Your task to perform on an android device: Do I have any events today? Image 0: 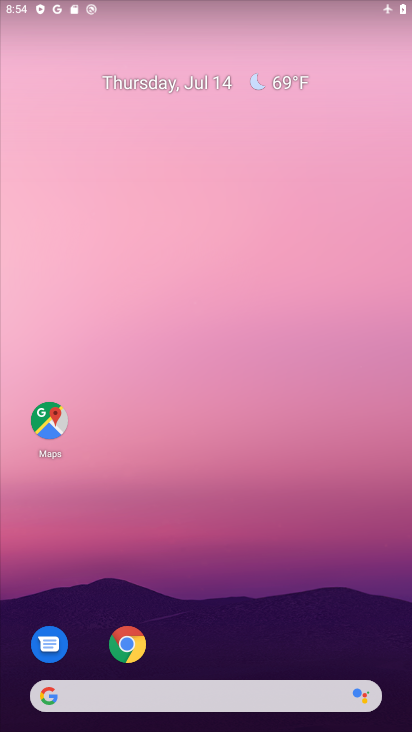
Step 0: click (146, 648)
Your task to perform on an android device: Do I have any events today? Image 1: 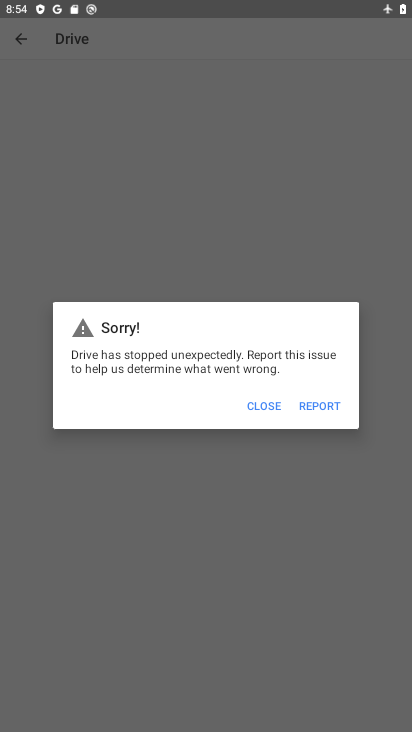
Step 1: press home button
Your task to perform on an android device: Do I have any events today? Image 2: 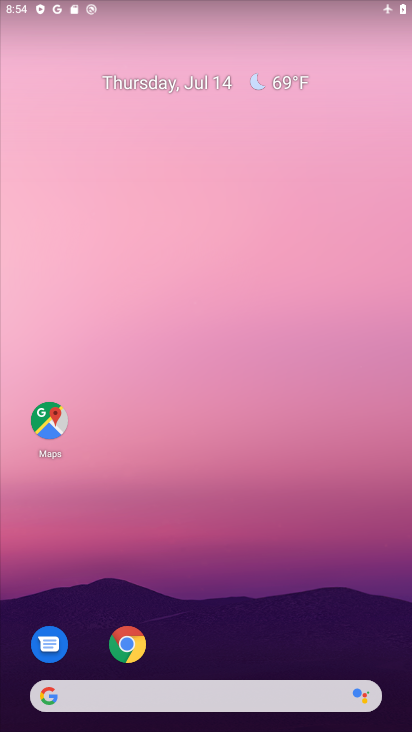
Step 2: click (155, 87)
Your task to perform on an android device: Do I have any events today? Image 3: 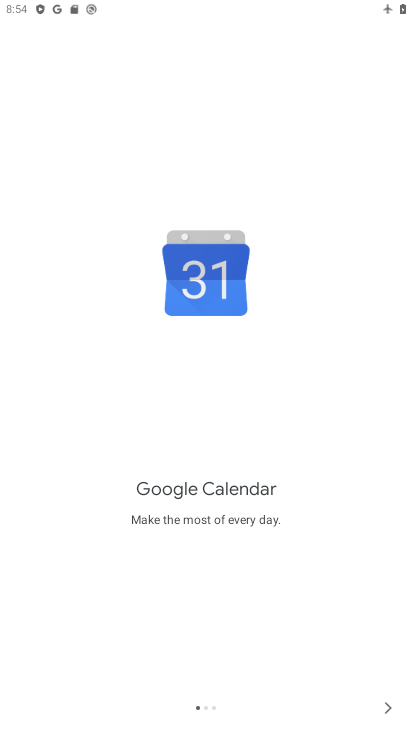
Step 3: click (373, 701)
Your task to perform on an android device: Do I have any events today? Image 4: 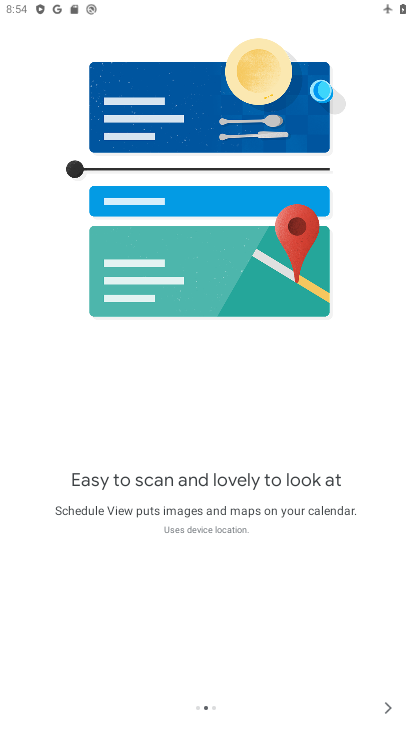
Step 4: click (381, 703)
Your task to perform on an android device: Do I have any events today? Image 5: 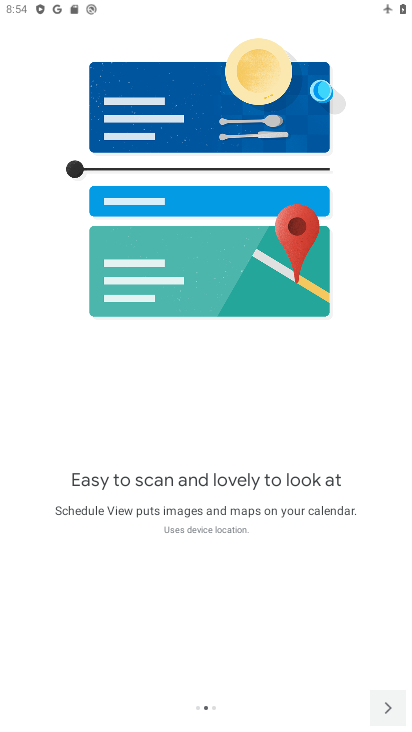
Step 5: click (381, 703)
Your task to perform on an android device: Do I have any events today? Image 6: 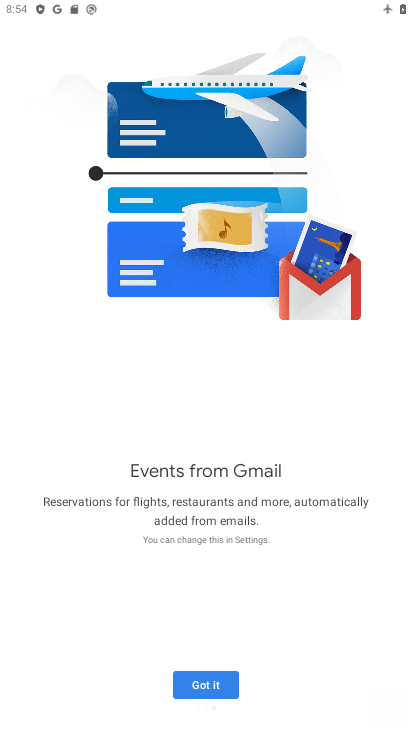
Step 6: click (381, 703)
Your task to perform on an android device: Do I have any events today? Image 7: 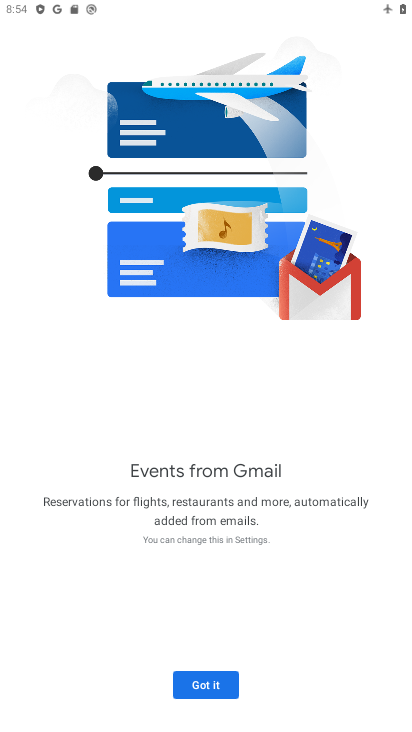
Step 7: click (381, 703)
Your task to perform on an android device: Do I have any events today? Image 8: 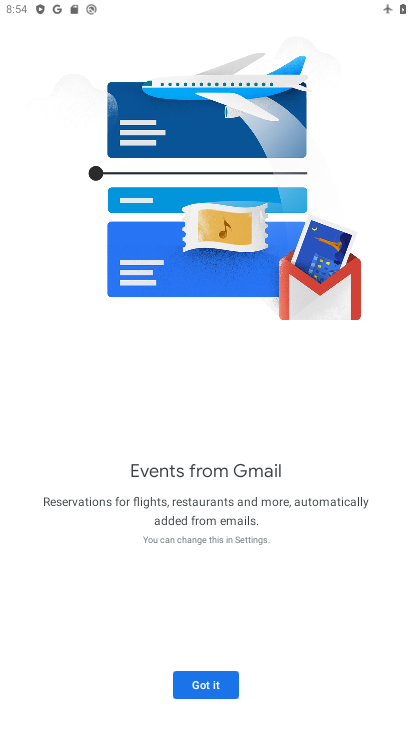
Step 8: click (196, 679)
Your task to perform on an android device: Do I have any events today? Image 9: 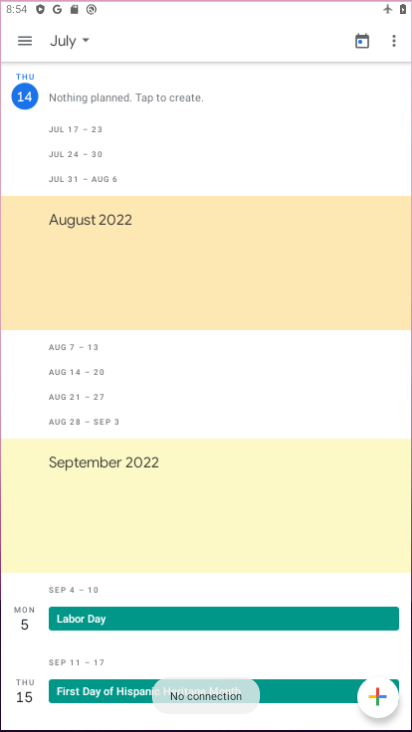
Step 9: click (196, 679)
Your task to perform on an android device: Do I have any events today? Image 10: 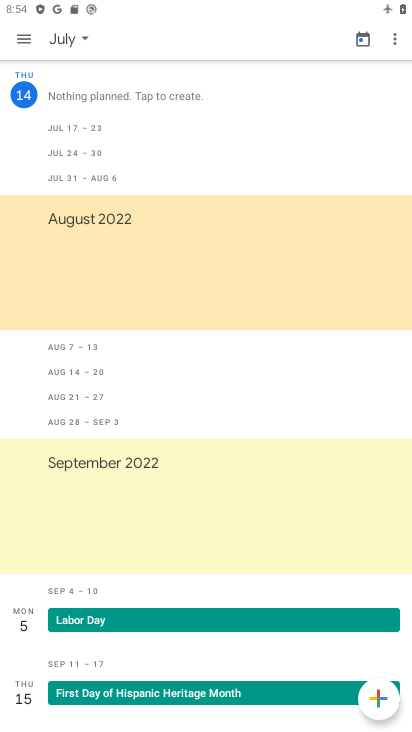
Step 10: click (31, 31)
Your task to perform on an android device: Do I have any events today? Image 11: 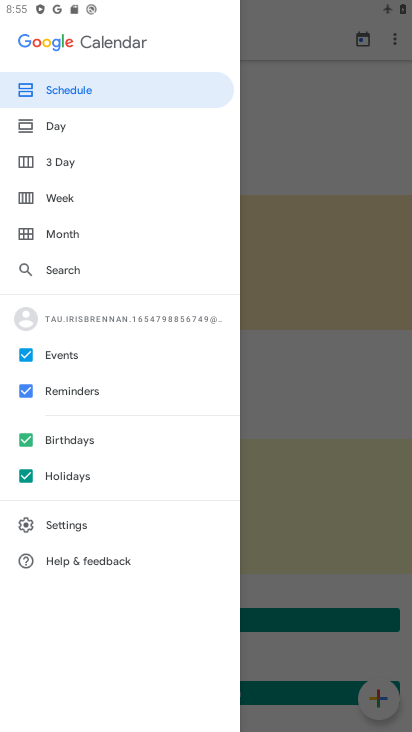
Step 11: click (28, 394)
Your task to perform on an android device: Do I have any events today? Image 12: 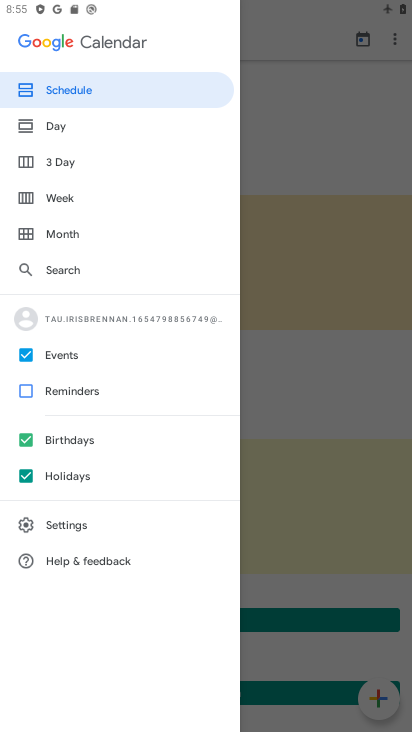
Step 12: click (24, 432)
Your task to perform on an android device: Do I have any events today? Image 13: 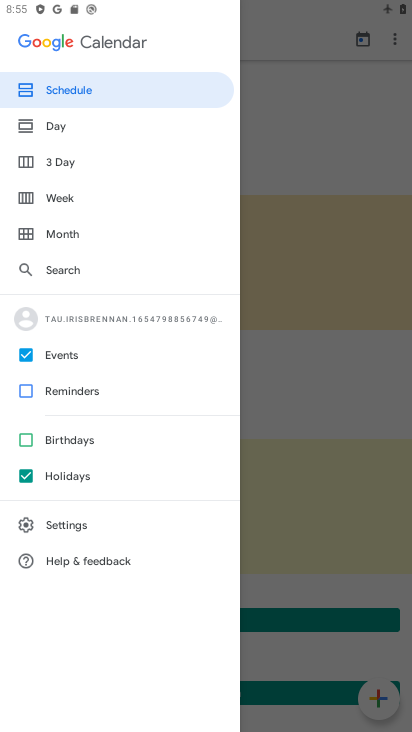
Step 13: click (24, 471)
Your task to perform on an android device: Do I have any events today? Image 14: 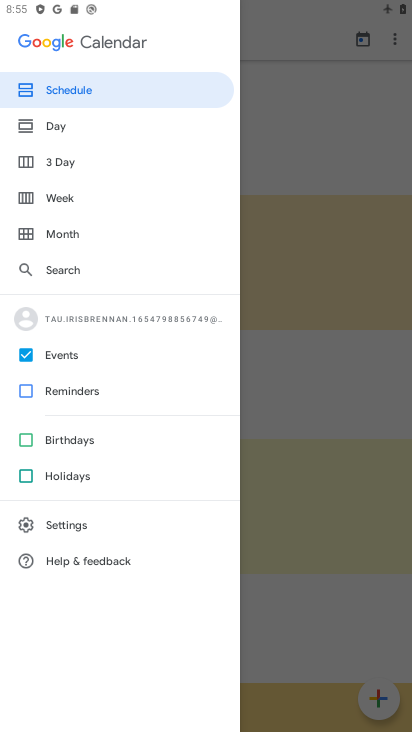
Step 14: click (65, 121)
Your task to perform on an android device: Do I have any events today? Image 15: 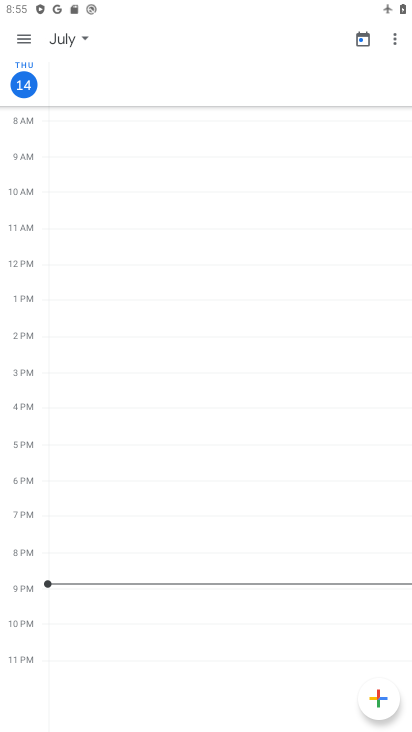
Step 15: task complete